Your task to perform on an android device: Go to internet settings Image 0: 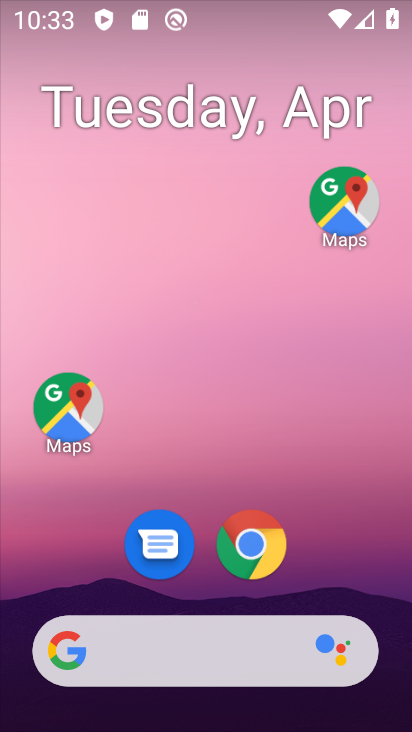
Step 0: drag from (309, 500) to (313, 89)
Your task to perform on an android device: Go to internet settings Image 1: 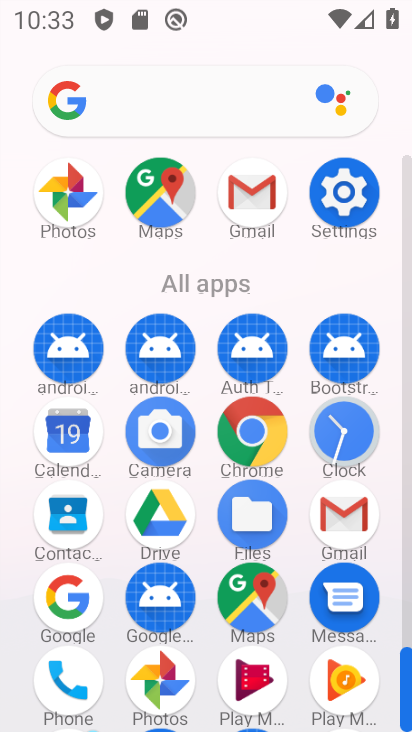
Step 1: click (346, 216)
Your task to perform on an android device: Go to internet settings Image 2: 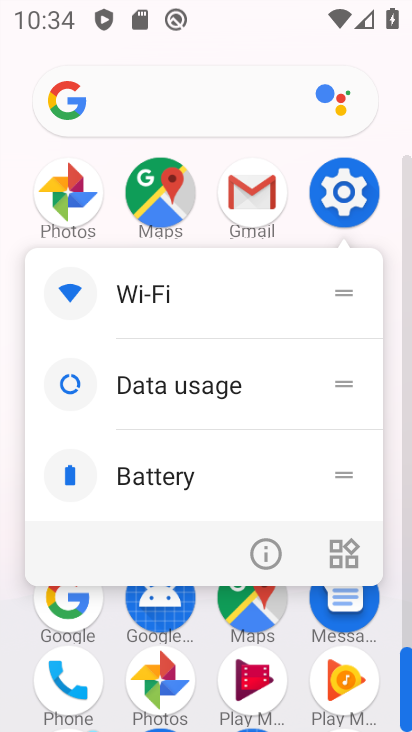
Step 2: click (354, 190)
Your task to perform on an android device: Go to internet settings Image 3: 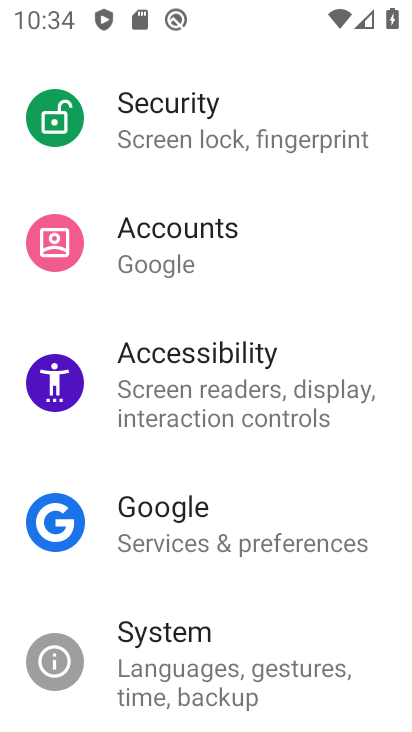
Step 3: drag from (297, 263) to (297, 645)
Your task to perform on an android device: Go to internet settings Image 4: 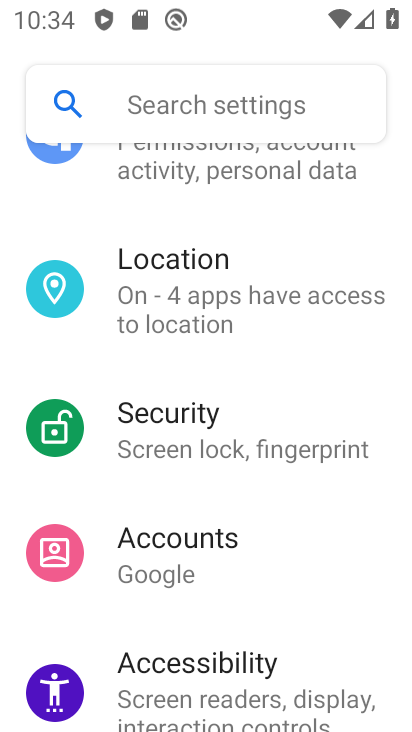
Step 4: drag from (282, 225) to (261, 635)
Your task to perform on an android device: Go to internet settings Image 5: 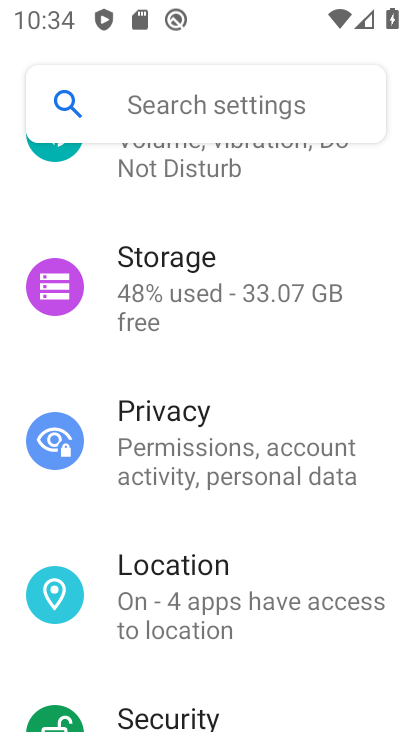
Step 5: drag from (240, 374) to (241, 617)
Your task to perform on an android device: Go to internet settings Image 6: 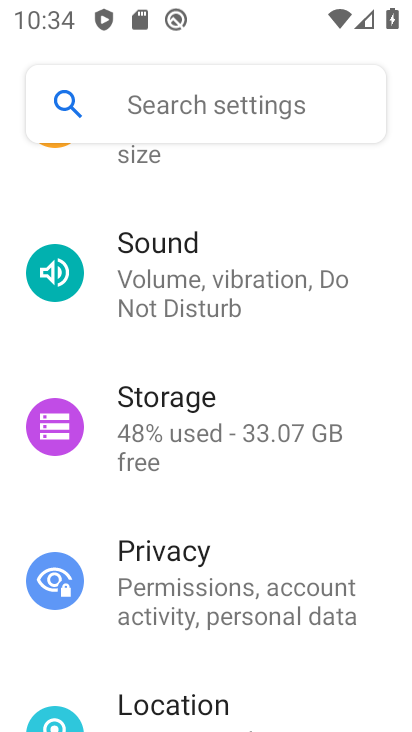
Step 6: drag from (238, 231) to (251, 670)
Your task to perform on an android device: Go to internet settings Image 7: 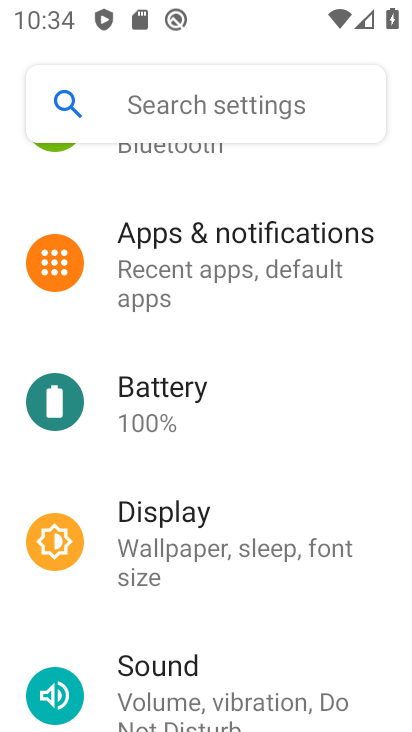
Step 7: drag from (258, 308) to (261, 521)
Your task to perform on an android device: Go to internet settings Image 8: 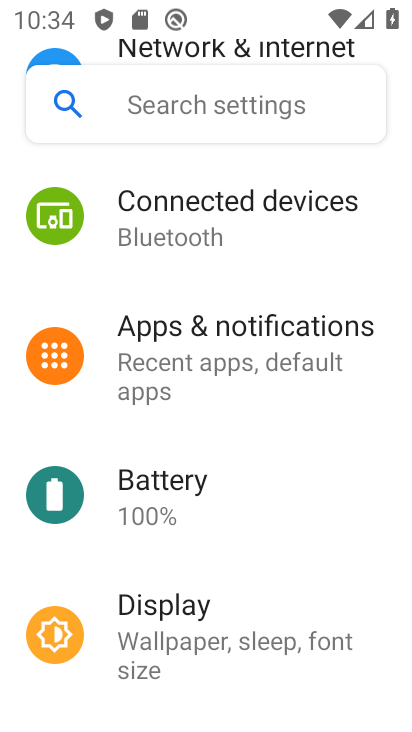
Step 8: drag from (267, 249) to (239, 578)
Your task to perform on an android device: Go to internet settings Image 9: 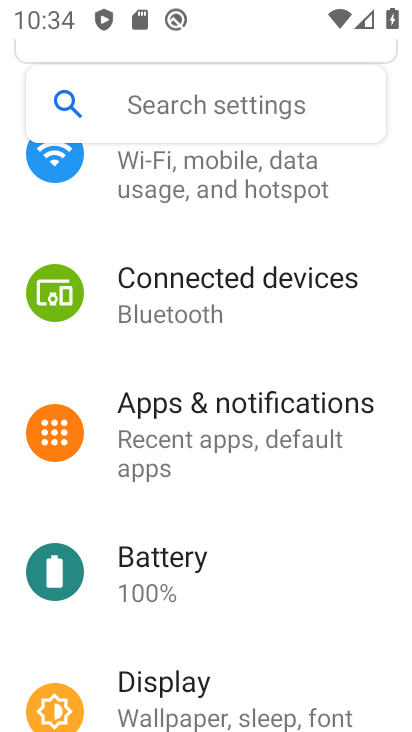
Step 9: click (281, 199)
Your task to perform on an android device: Go to internet settings Image 10: 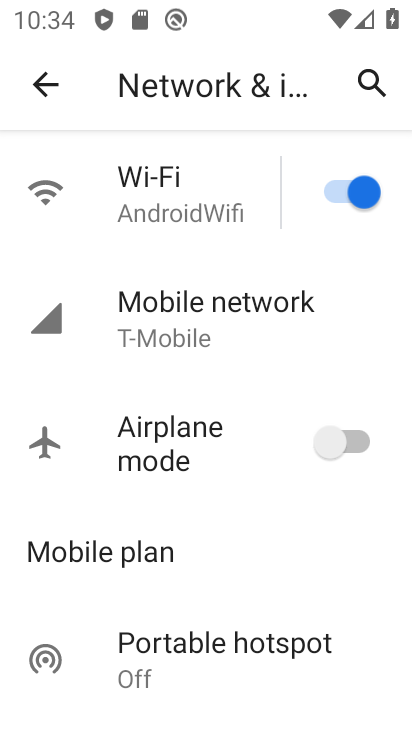
Step 10: task complete